Your task to perform on an android device: Open Wikipedia Image 0: 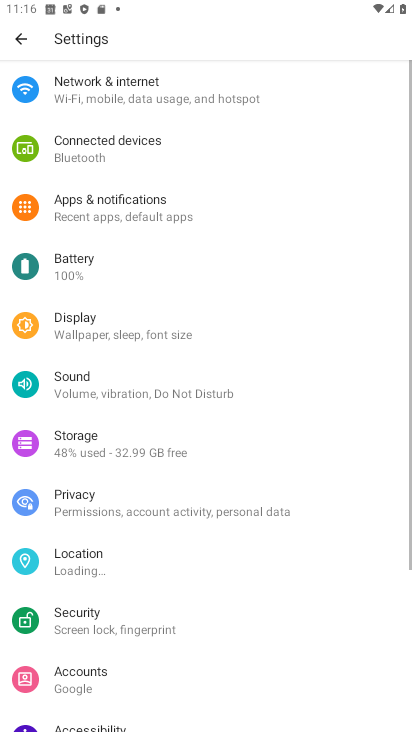
Step 0: press home button
Your task to perform on an android device: Open Wikipedia Image 1: 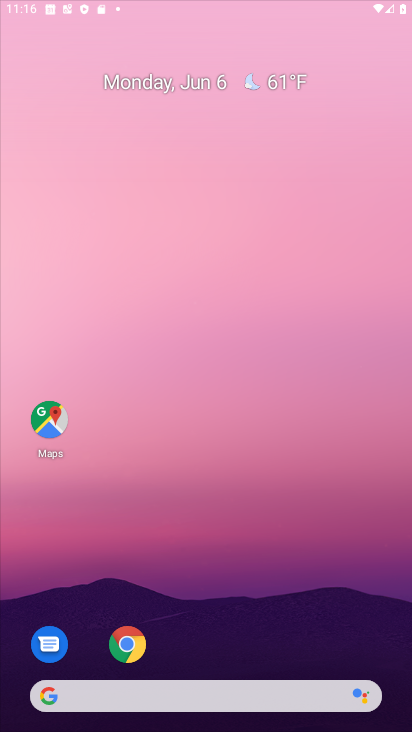
Step 1: drag from (209, 615) to (251, 168)
Your task to perform on an android device: Open Wikipedia Image 2: 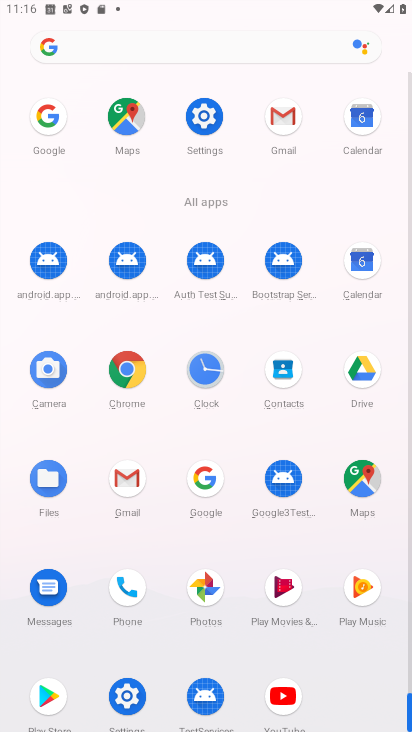
Step 2: click (133, 376)
Your task to perform on an android device: Open Wikipedia Image 3: 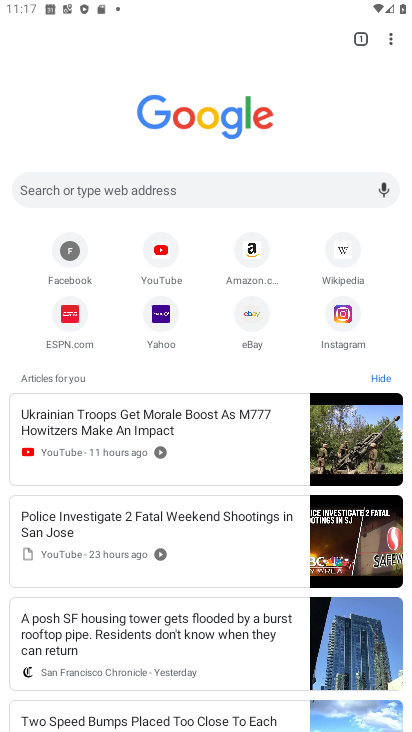
Step 3: click (330, 271)
Your task to perform on an android device: Open Wikipedia Image 4: 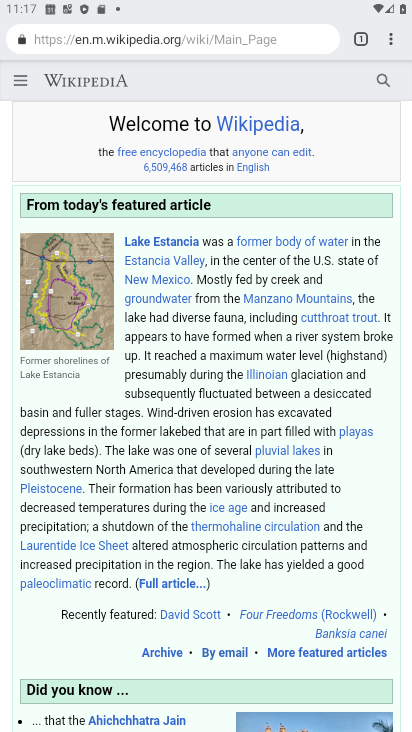
Step 4: task complete